Your task to perform on an android device: empty trash in the gmail app Image 0: 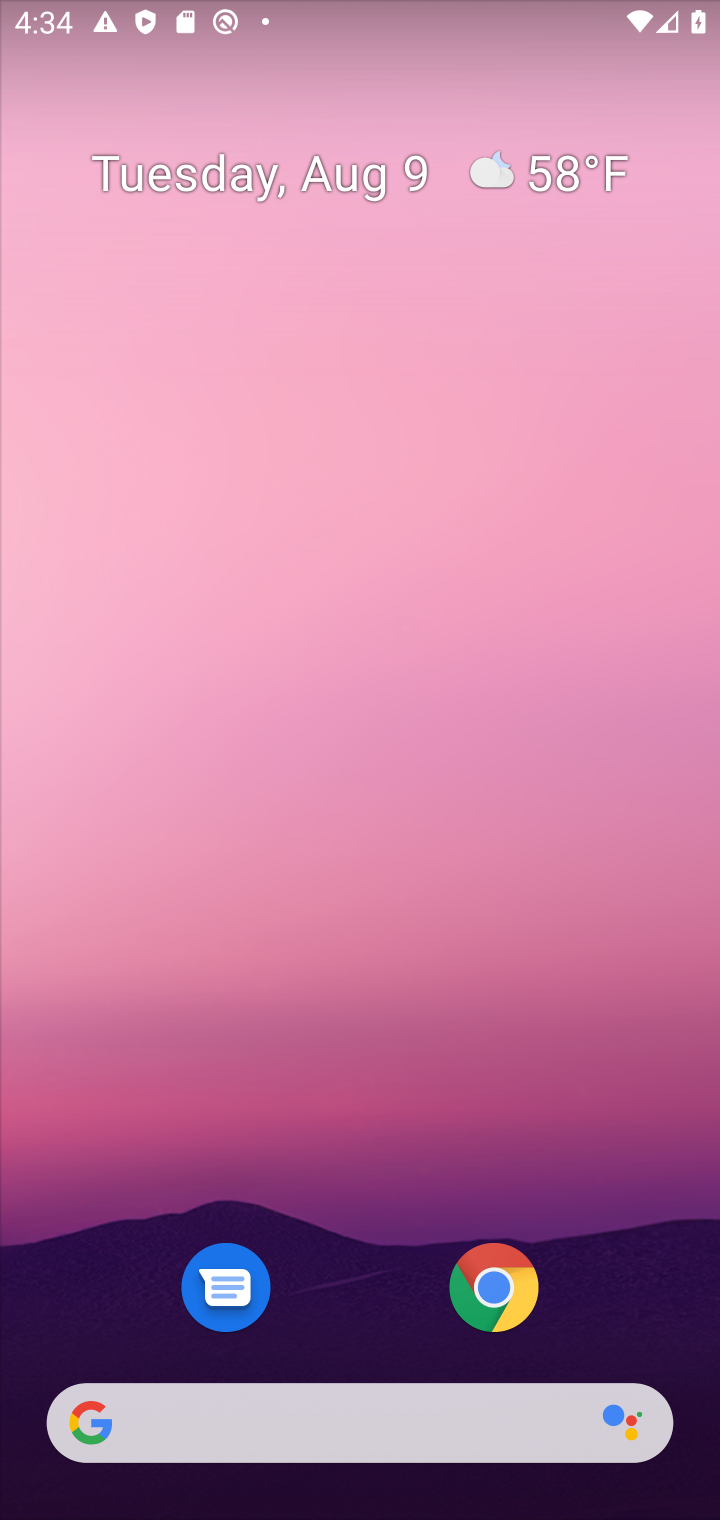
Step 0: drag from (416, 1074) to (395, 284)
Your task to perform on an android device: empty trash in the gmail app Image 1: 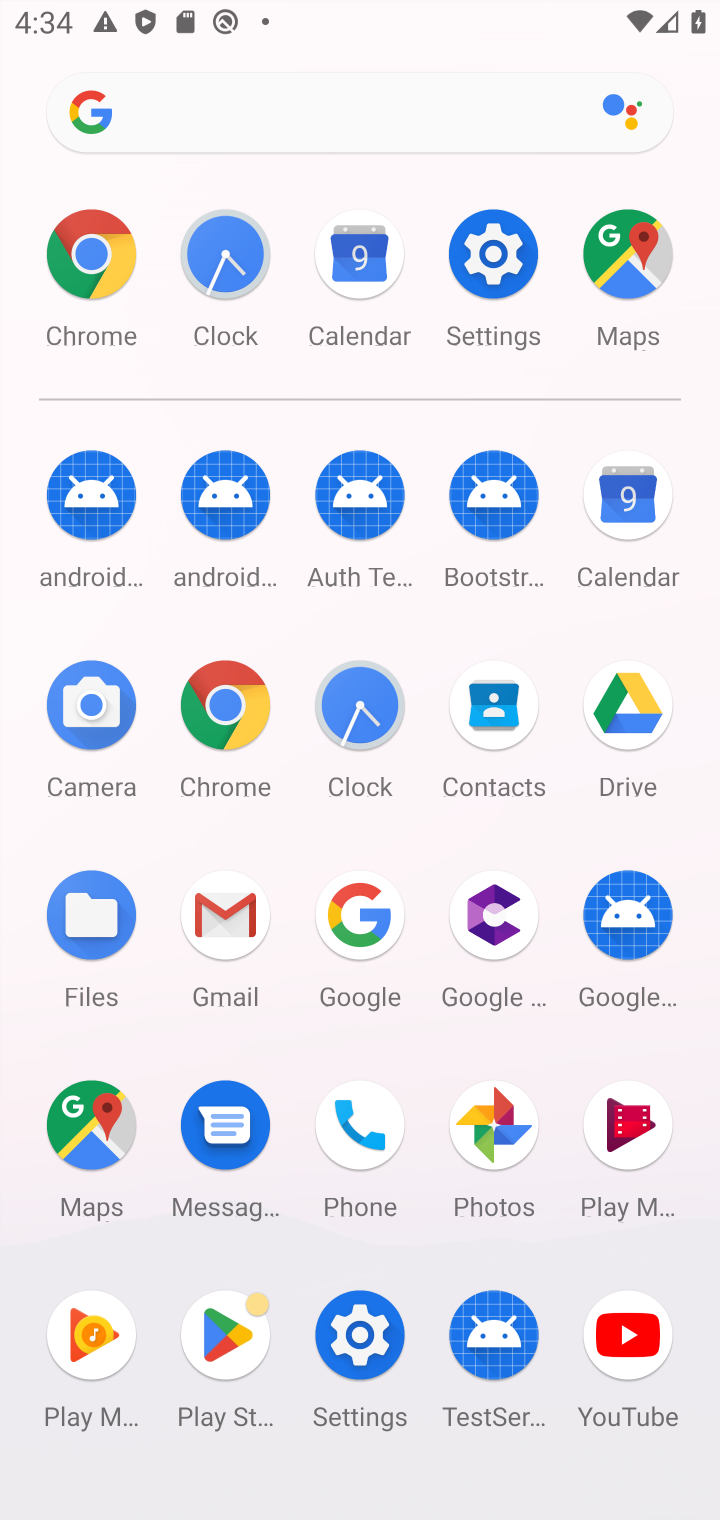
Step 1: click (236, 922)
Your task to perform on an android device: empty trash in the gmail app Image 2: 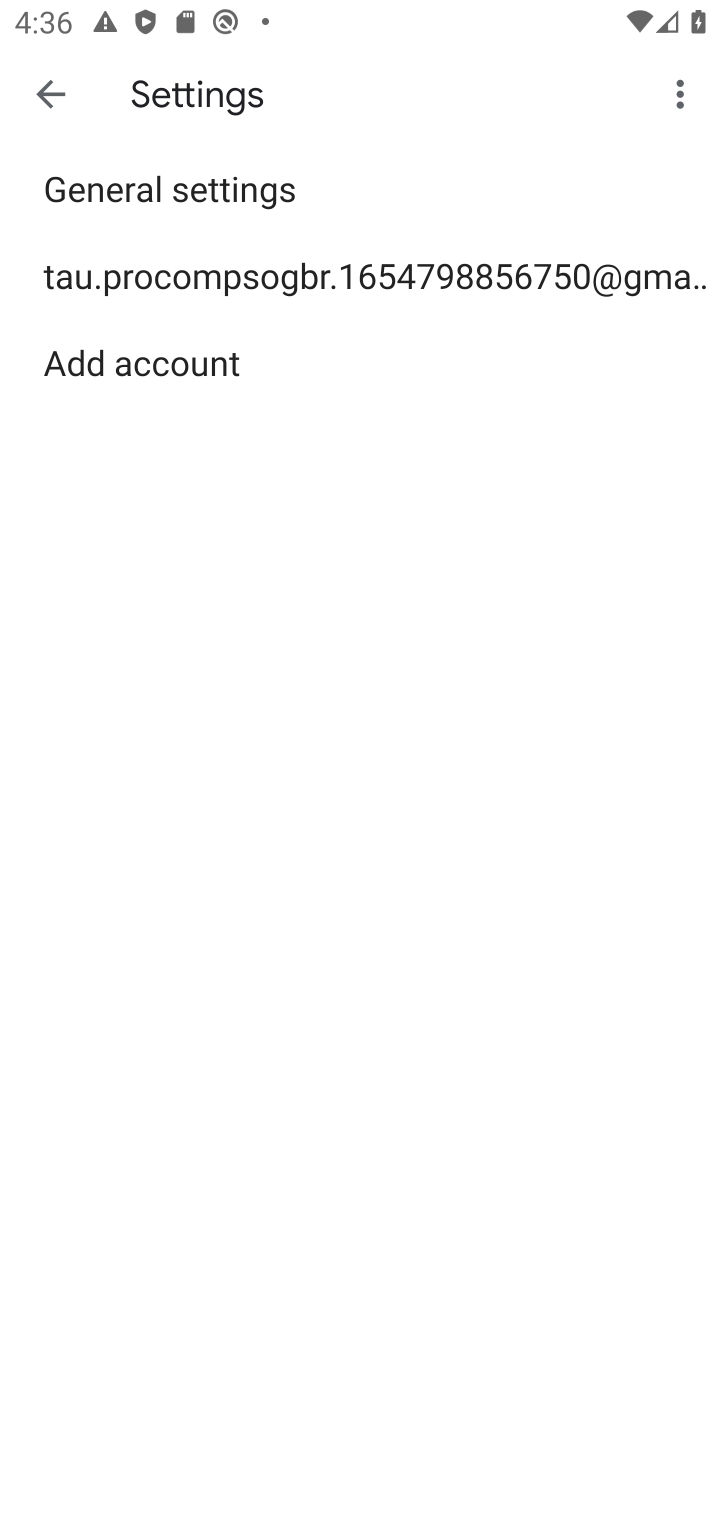
Step 2: task complete